Your task to perform on an android device: add a label to a message in the gmail app Image 0: 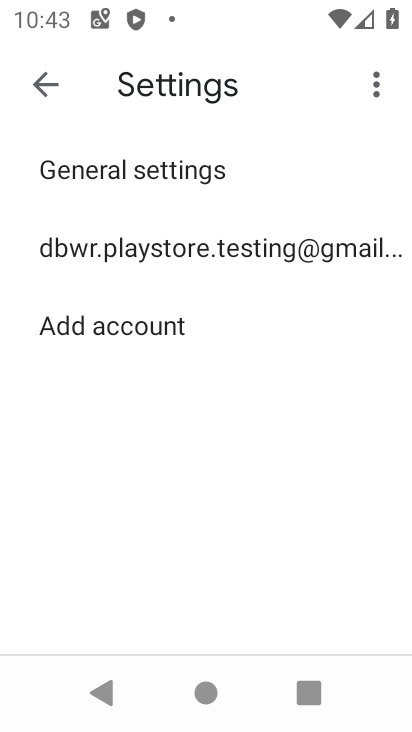
Step 0: press home button
Your task to perform on an android device: add a label to a message in the gmail app Image 1: 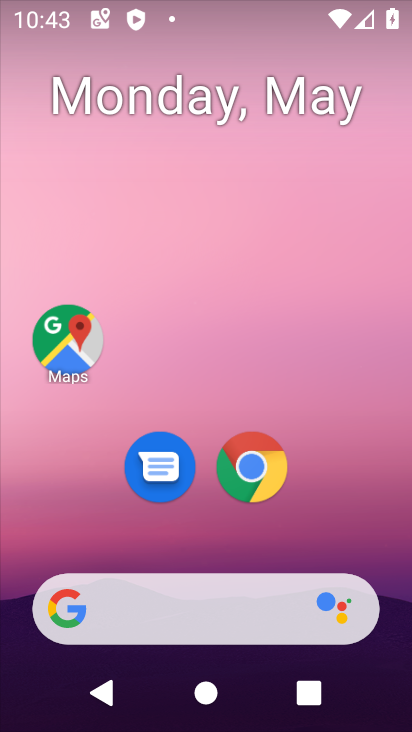
Step 1: drag from (404, 604) to (352, 116)
Your task to perform on an android device: add a label to a message in the gmail app Image 2: 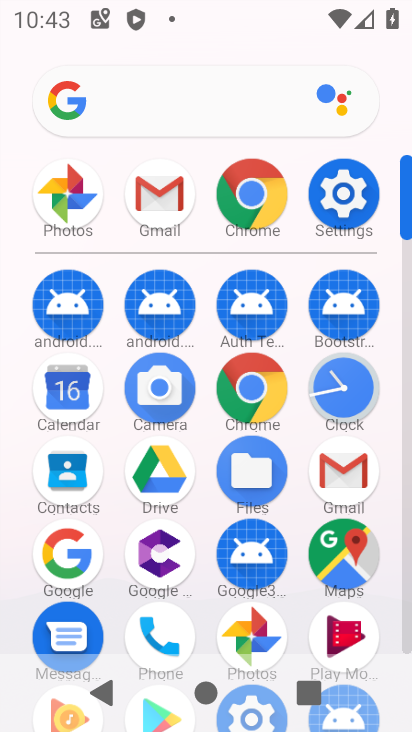
Step 2: click (341, 468)
Your task to perform on an android device: add a label to a message in the gmail app Image 3: 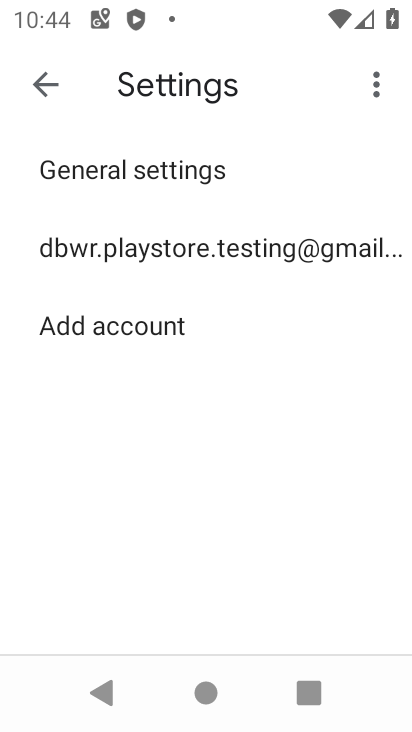
Step 3: press back button
Your task to perform on an android device: add a label to a message in the gmail app Image 4: 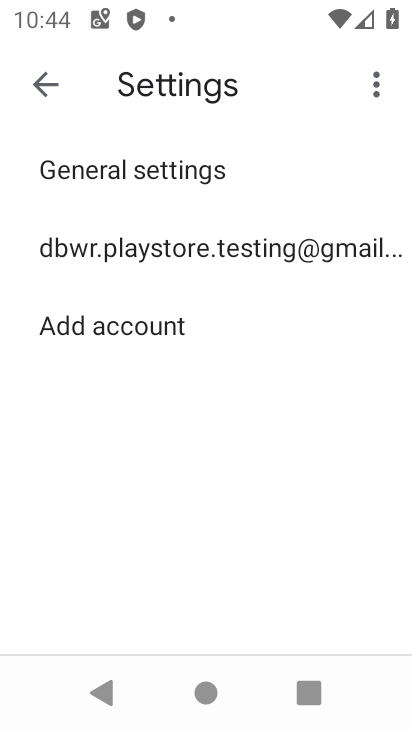
Step 4: press back button
Your task to perform on an android device: add a label to a message in the gmail app Image 5: 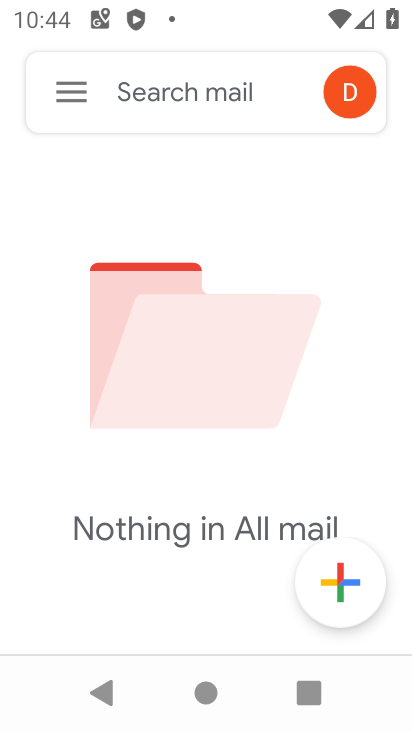
Step 5: click (57, 88)
Your task to perform on an android device: add a label to a message in the gmail app Image 6: 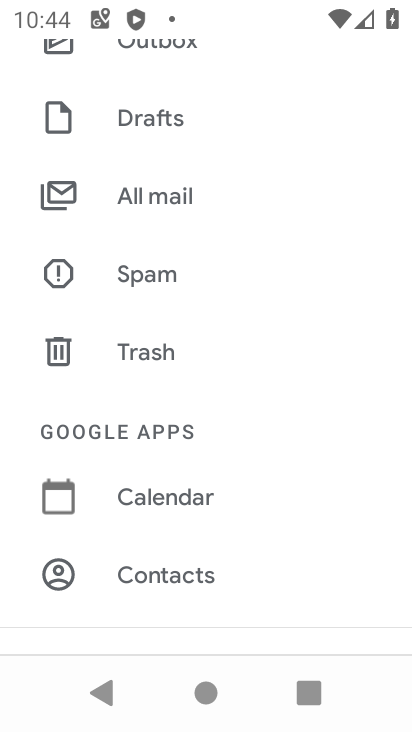
Step 6: click (154, 196)
Your task to perform on an android device: add a label to a message in the gmail app Image 7: 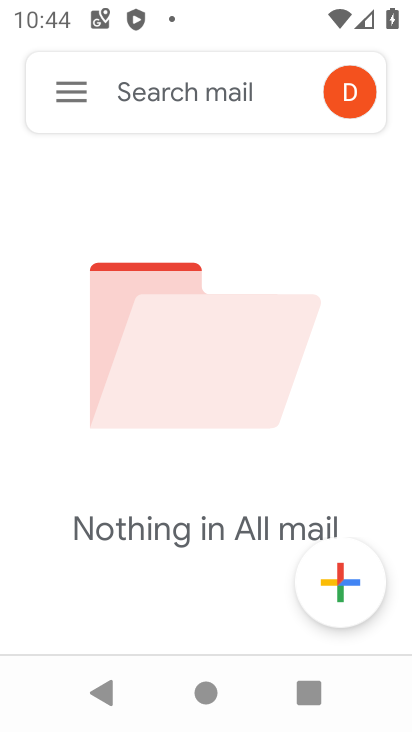
Step 7: task complete